Your task to perform on an android device: See recent photos Image 0: 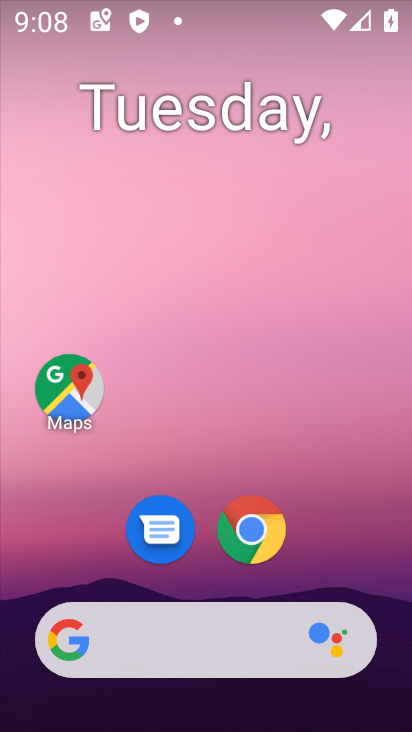
Step 0: drag from (244, 656) to (270, 393)
Your task to perform on an android device: See recent photos Image 1: 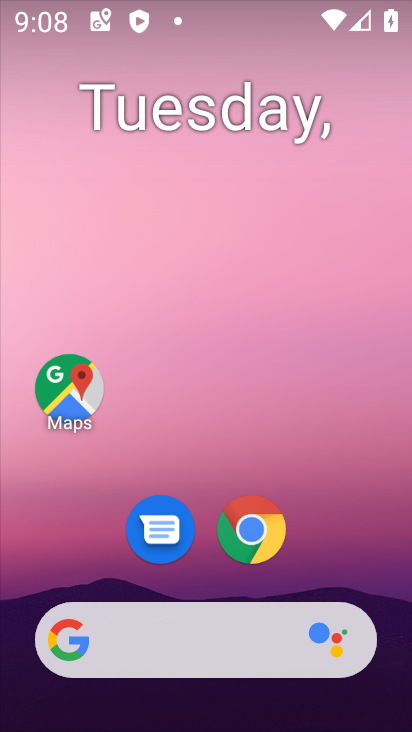
Step 1: drag from (210, 577) to (243, 53)
Your task to perform on an android device: See recent photos Image 2: 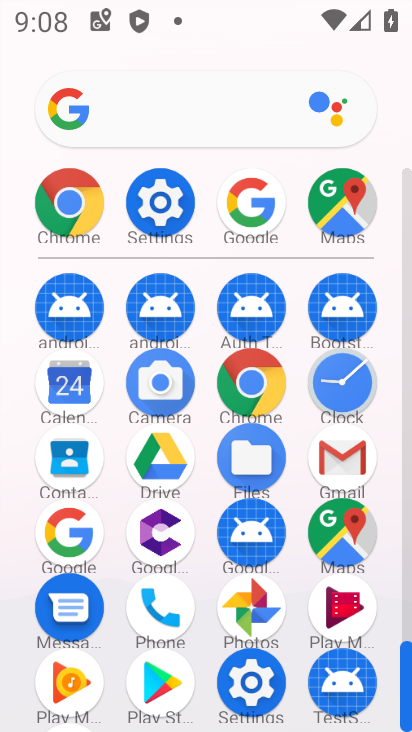
Step 2: click (255, 603)
Your task to perform on an android device: See recent photos Image 3: 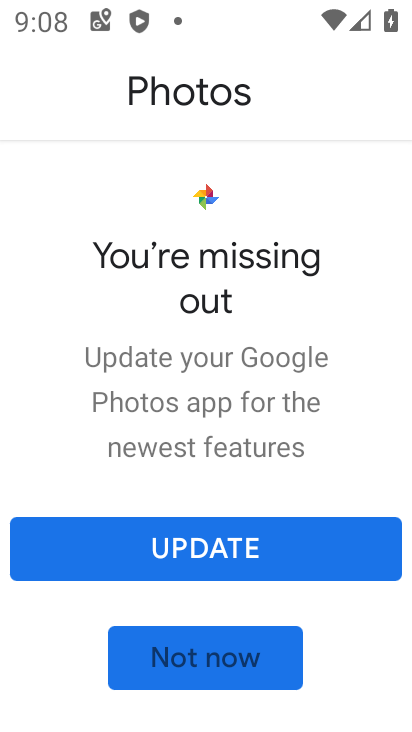
Step 3: click (249, 669)
Your task to perform on an android device: See recent photos Image 4: 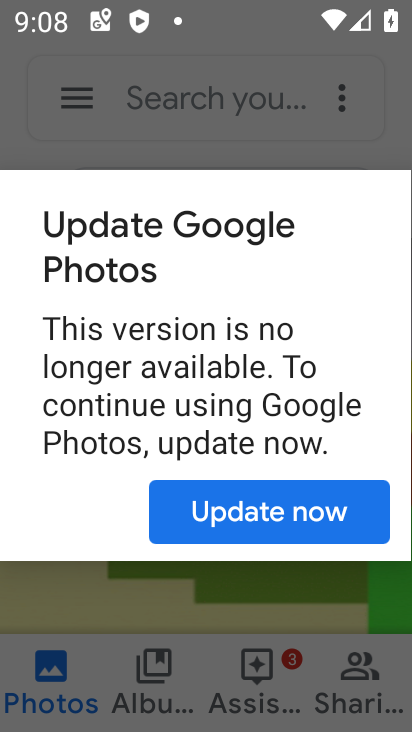
Step 4: click (261, 526)
Your task to perform on an android device: See recent photos Image 5: 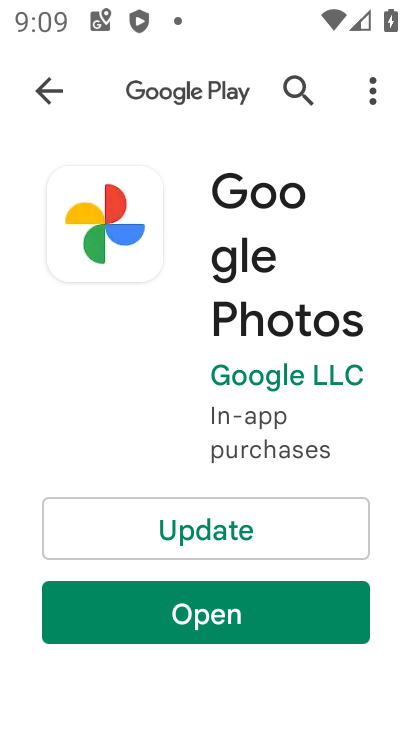
Step 5: click (275, 525)
Your task to perform on an android device: See recent photos Image 6: 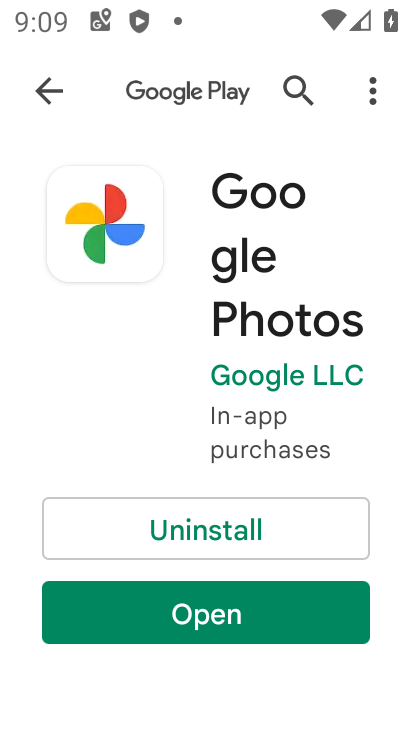
Step 6: task complete